Your task to perform on an android device: clear history in the chrome app Image 0: 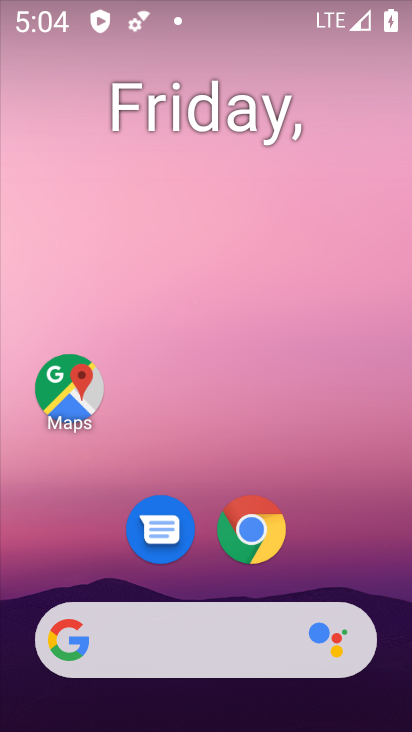
Step 0: click (263, 522)
Your task to perform on an android device: clear history in the chrome app Image 1: 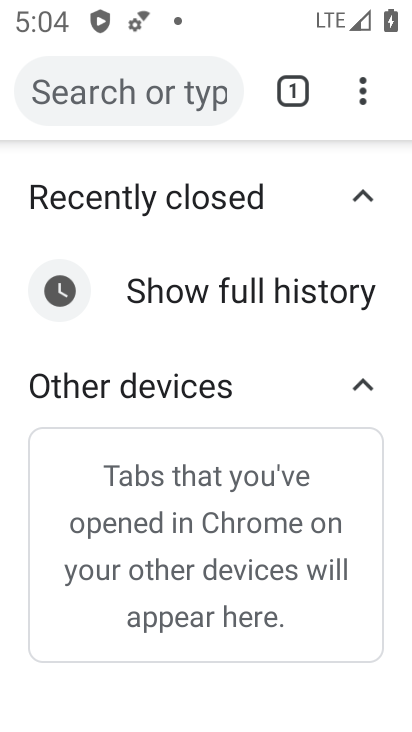
Step 1: click (362, 80)
Your task to perform on an android device: clear history in the chrome app Image 2: 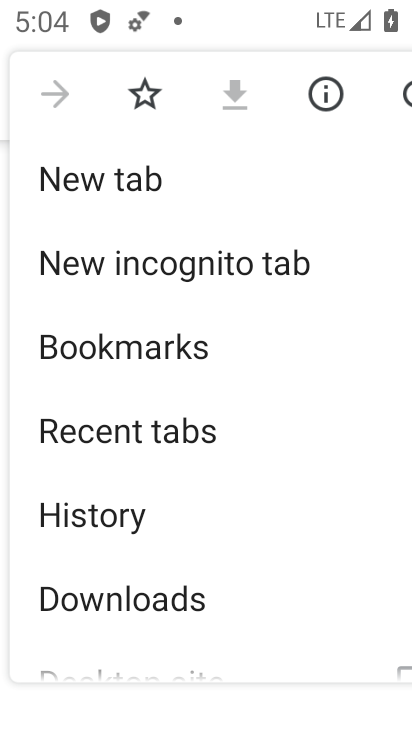
Step 2: click (85, 512)
Your task to perform on an android device: clear history in the chrome app Image 3: 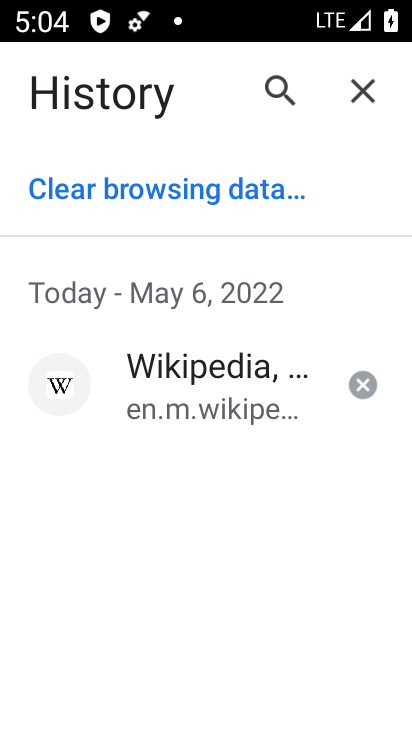
Step 3: click (211, 192)
Your task to perform on an android device: clear history in the chrome app Image 4: 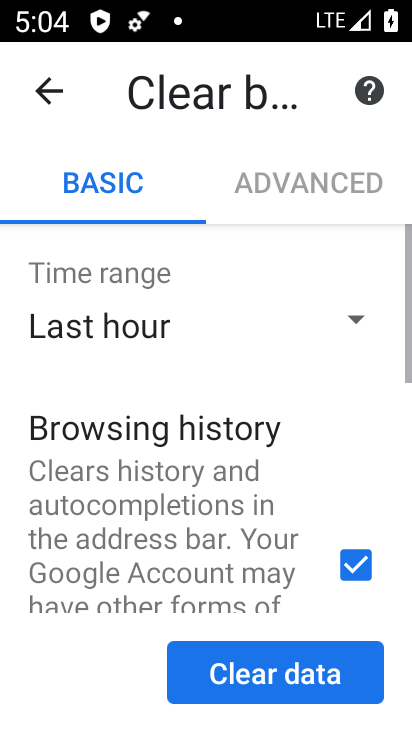
Step 4: click (310, 680)
Your task to perform on an android device: clear history in the chrome app Image 5: 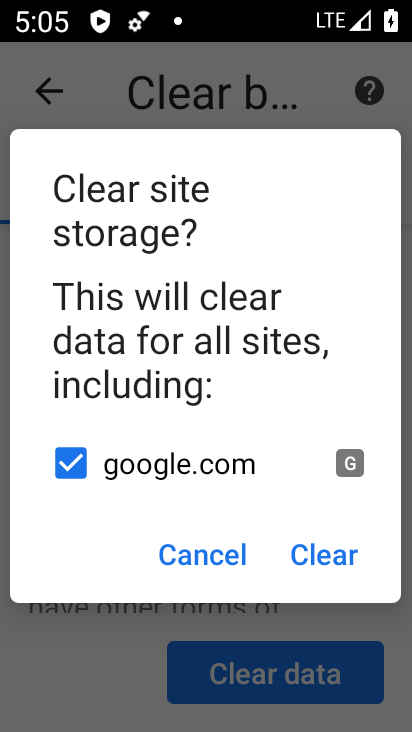
Step 5: click (322, 557)
Your task to perform on an android device: clear history in the chrome app Image 6: 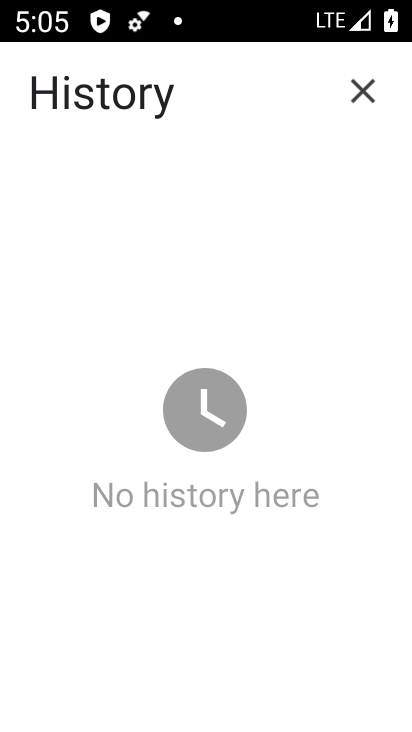
Step 6: task complete